Your task to perform on an android device: remove spam from my inbox in the gmail app Image 0: 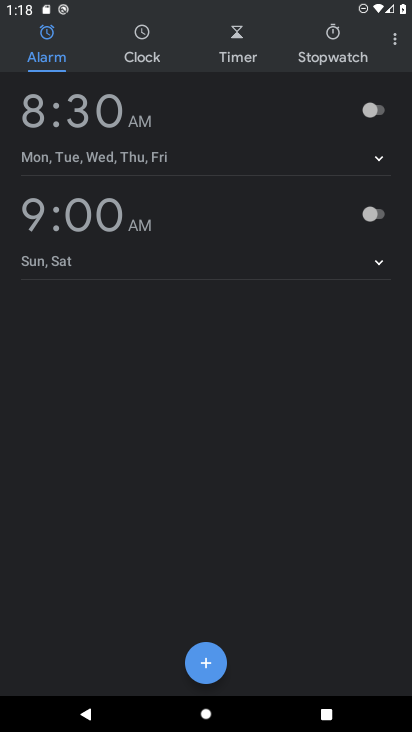
Step 0: press home button
Your task to perform on an android device: remove spam from my inbox in the gmail app Image 1: 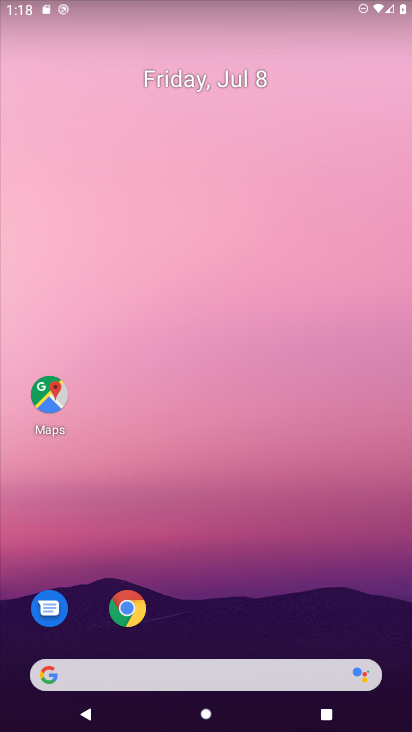
Step 1: drag from (269, 638) to (200, 147)
Your task to perform on an android device: remove spam from my inbox in the gmail app Image 2: 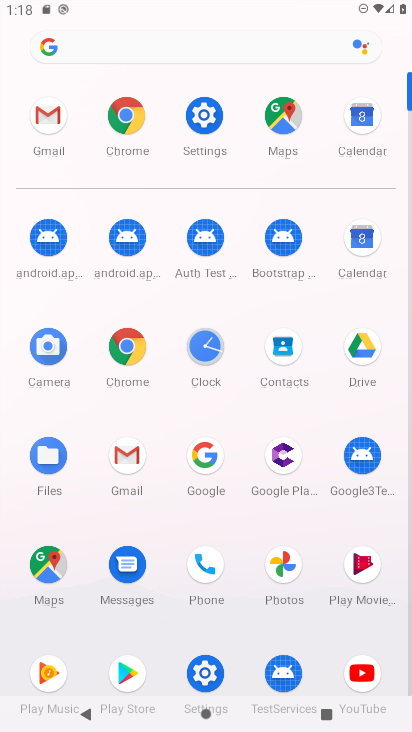
Step 2: click (68, 128)
Your task to perform on an android device: remove spam from my inbox in the gmail app Image 3: 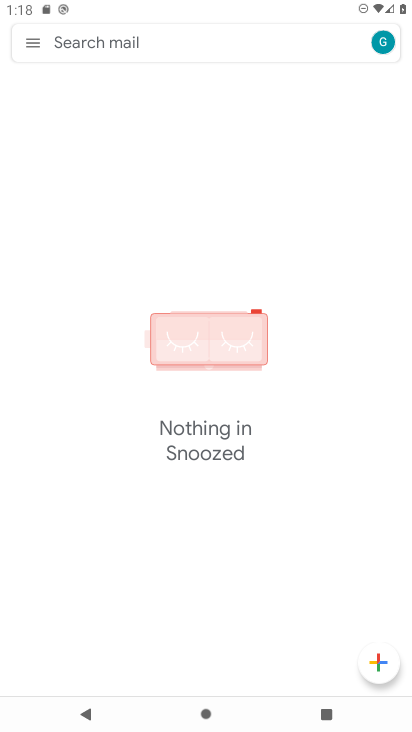
Step 3: click (28, 49)
Your task to perform on an android device: remove spam from my inbox in the gmail app Image 4: 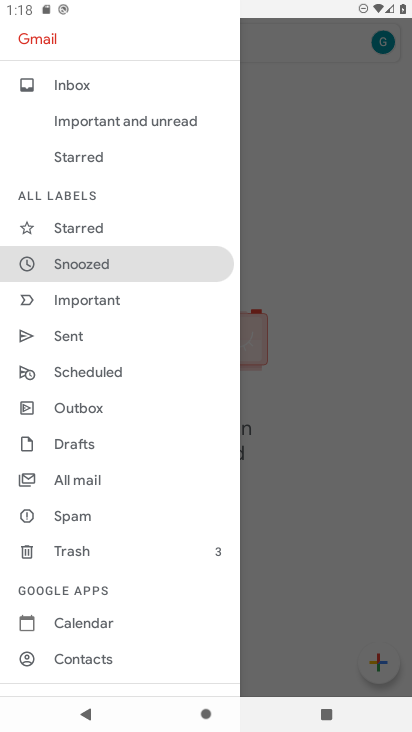
Step 4: click (115, 83)
Your task to perform on an android device: remove spam from my inbox in the gmail app Image 5: 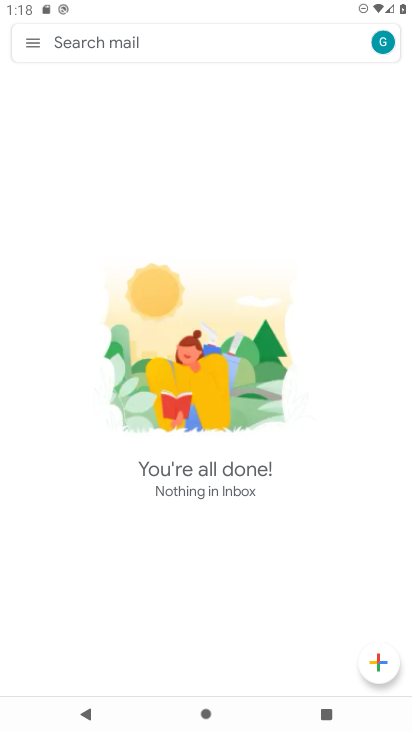
Step 5: task complete